Your task to perform on an android device: change timer sound Image 0: 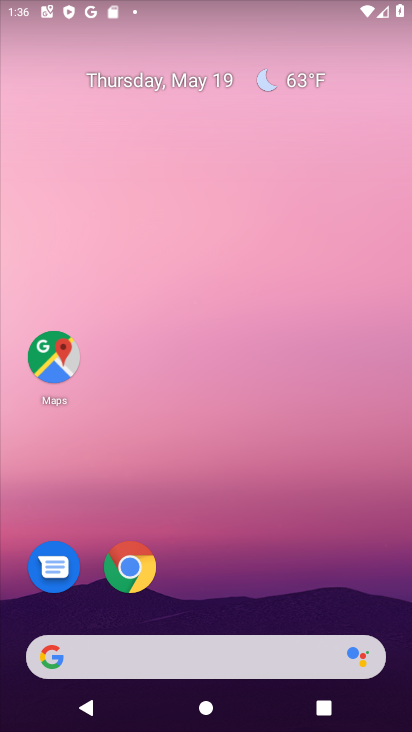
Step 0: drag from (254, 429) to (243, 5)
Your task to perform on an android device: change timer sound Image 1: 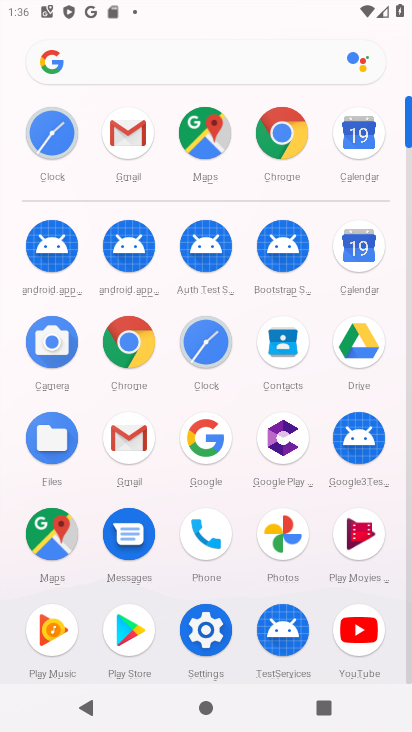
Step 1: click (58, 134)
Your task to perform on an android device: change timer sound Image 2: 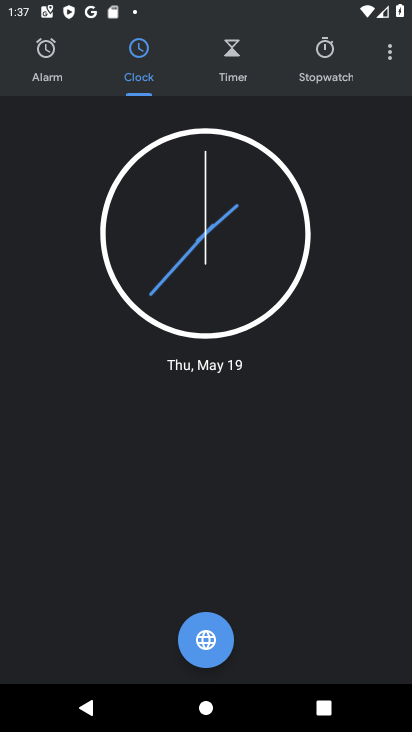
Step 2: click (390, 67)
Your task to perform on an android device: change timer sound Image 3: 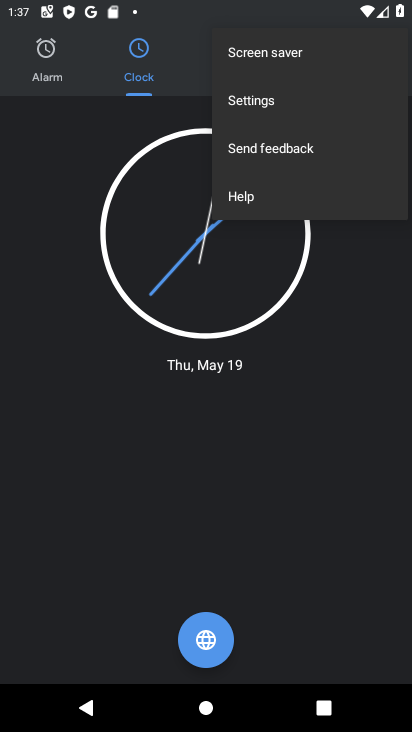
Step 3: click (295, 107)
Your task to perform on an android device: change timer sound Image 4: 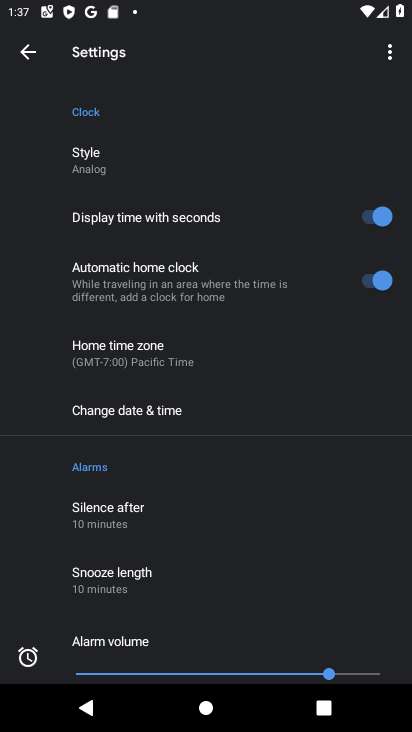
Step 4: drag from (156, 567) to (89, 240)
Your task to perform on an android device: change timer sound Image 5: 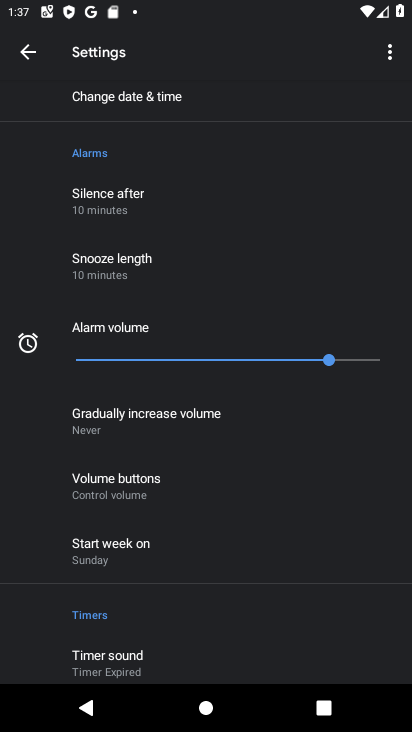
Step 5: drag from (239, 642) to (325, 291)
Your task to perform on an android device: change timer sound Image 6: 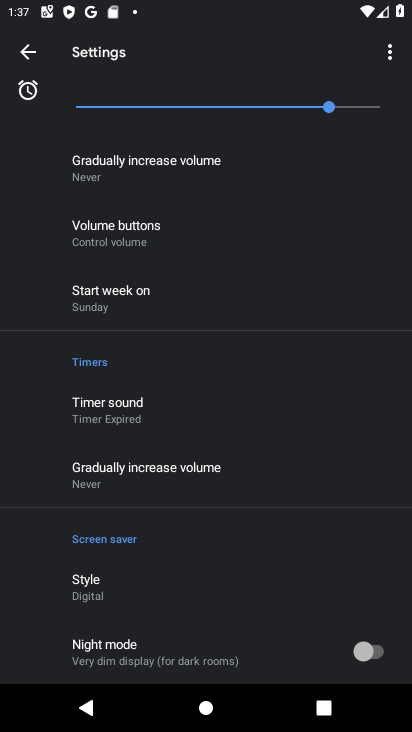
Step 6: click (117, 409)
Your task to perform on an android device: change timer sound Image 7: 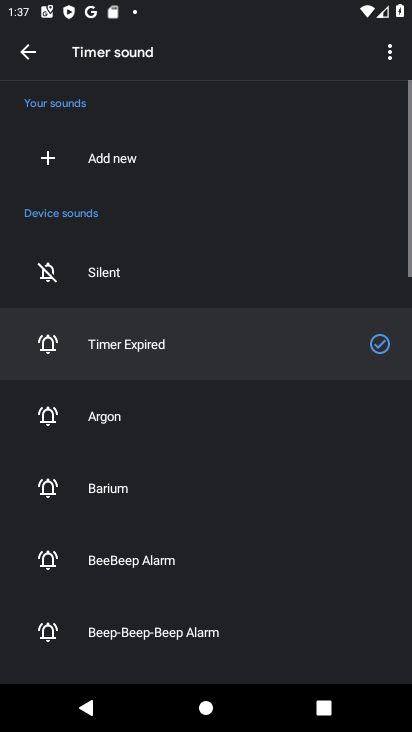
Step 7: click (140, 428)
Your task to perform on an android device: change timer sound Image 8: 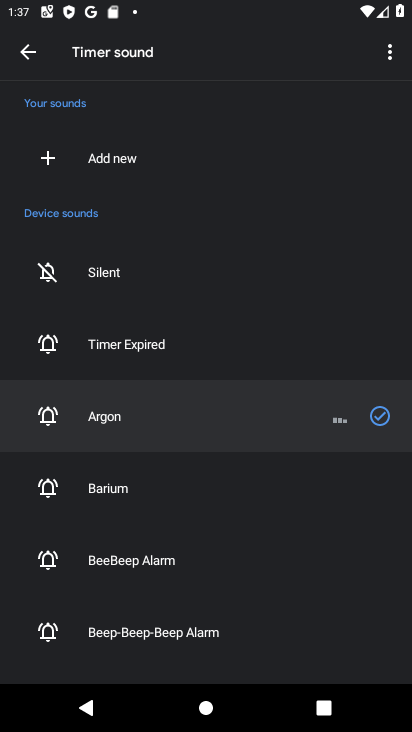
Step 8: task complete